Your task to perform on an android device: check out phone information Image 0: 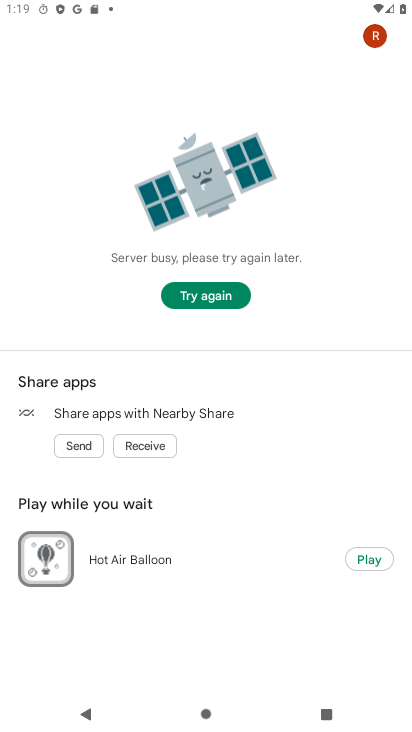
Step 0: press home button
Your task to perform on an android device: check out phone information Image 1: 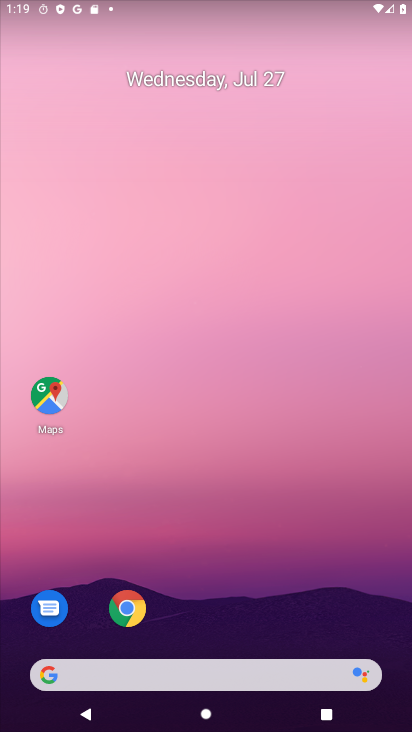
Step 1: drag from (187, 418) to (191, 4)
Your task to perform on an android device: check out phone information Image 2: 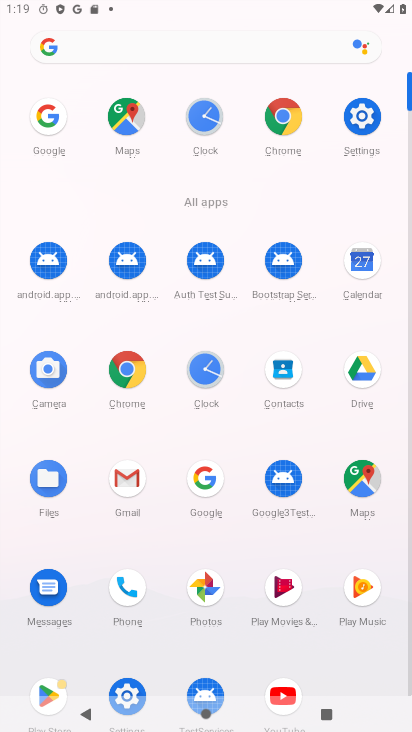
Step 2: click (374, 116)
Your task to perform on an android device: check out phone information Image 3: 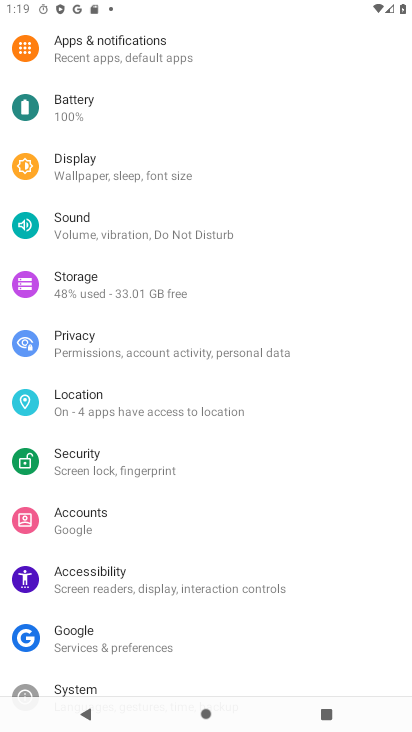
Step 3: drag from (102, 611) to (183, 116)
Your task to perform on an android device: check out phone information Image 4: 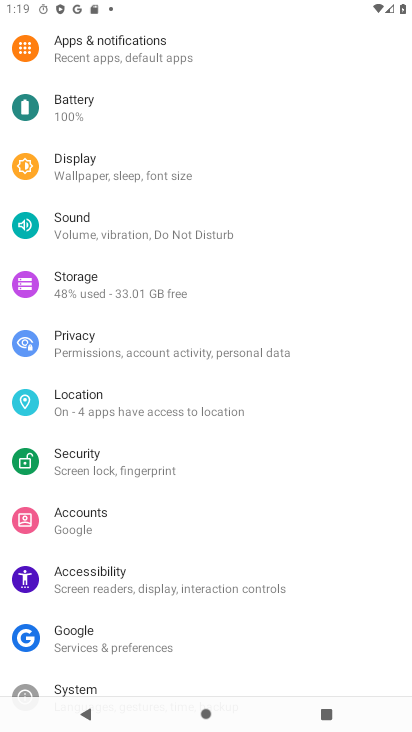
Step 4: drag from (158, 599) to (180, 247)
Your task to perform on an android device: check out phone information Image 5: 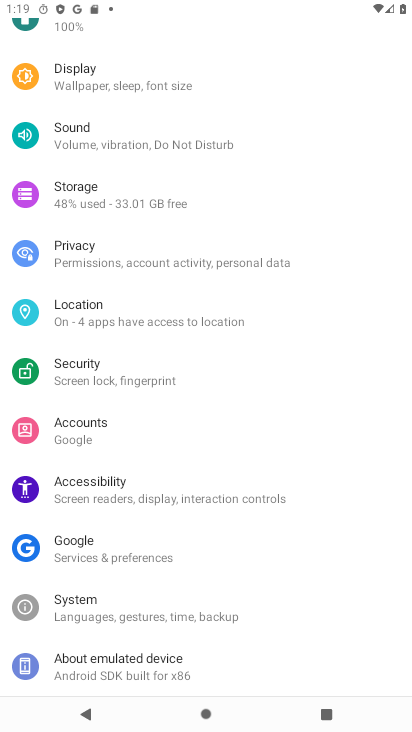
Step 5: click (76, 664)
Your task to perform on an android device: check out phone information Image 6: 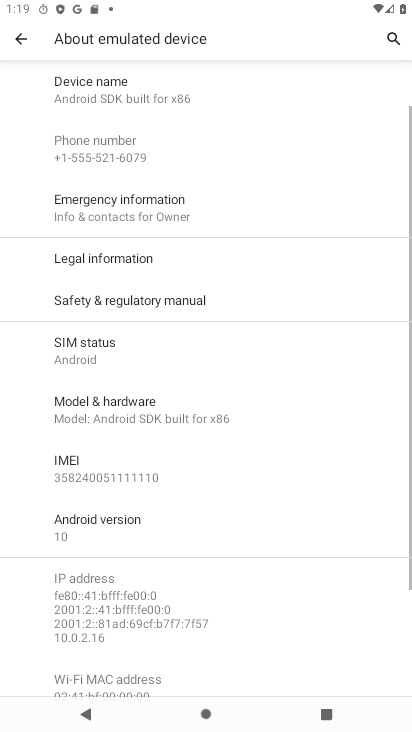
Step 6: task complete